Your task to perform on an android device: Open Google Maps and go to "Timeline" Image 0: 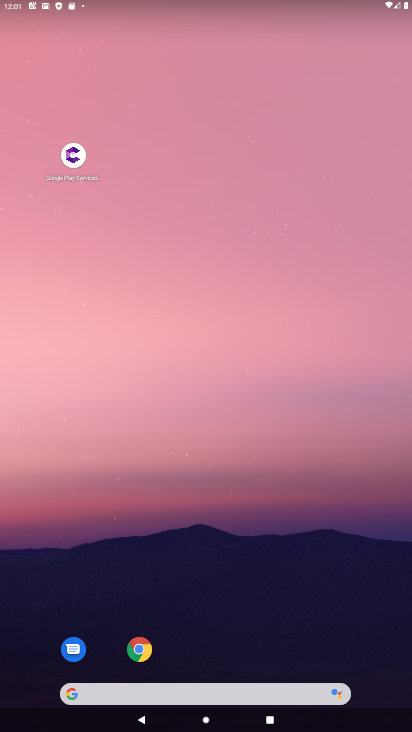
Step 0: drag from (151, 675) to (175, 161)
Your task to perform on an android device: Open Google Maps and go to "Timeline" Image 1: 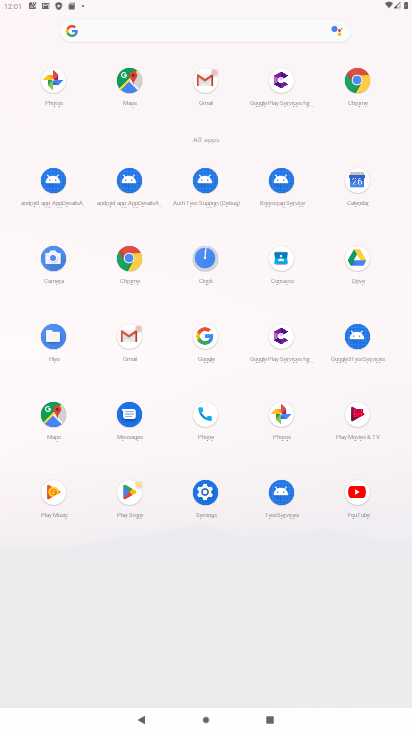
Step 1: click (45, 413)
Your task to perform on an android device: Open Google Maps and go to "Timeline" Image 2: 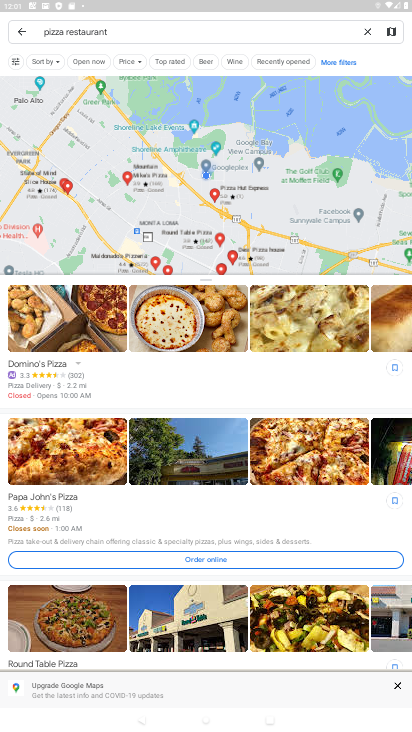
Step 2: click (363, 33)
Your task to perform on an android device: Open Google Maps and go to "Timeline" Image 3: 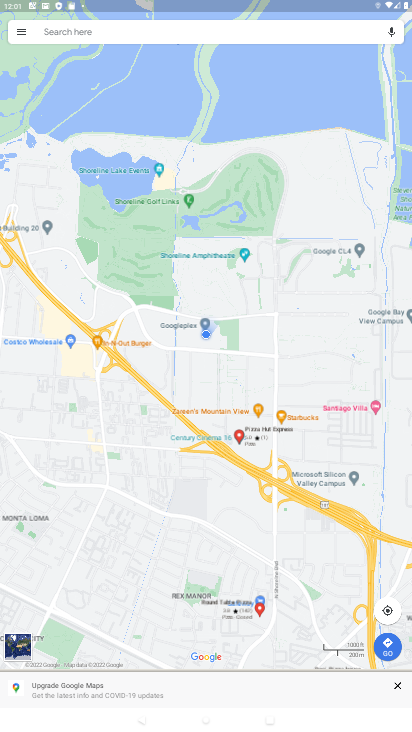
Step 3: click (21, 32)
Your task to perform on an android device: Open Google Maps and go to "Timeline" Image 4: 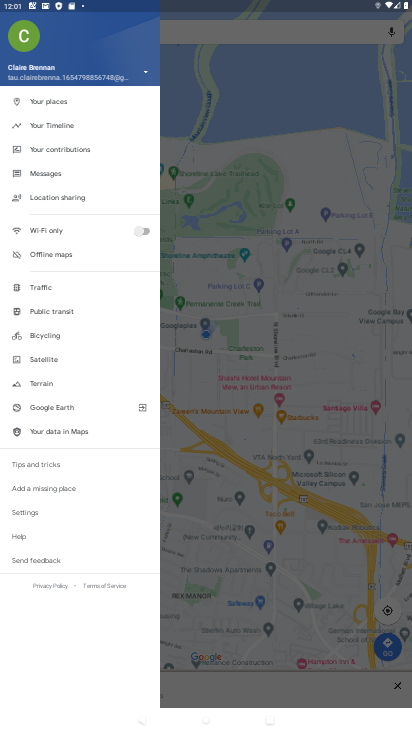
Step 4: click (53, 126)
Your task to perform on an android device: Open Google Maps and go to "Timeline" Image 5: 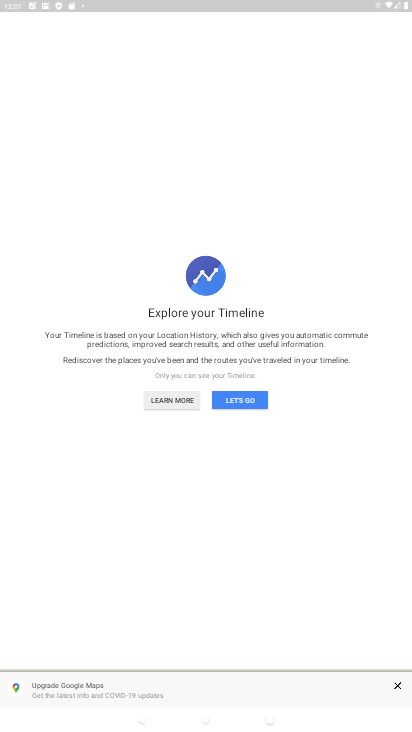
Step 5: click (256, 395)
Your task to perform on an android device: Open Google Maps and go to "Timeline" Image 6: 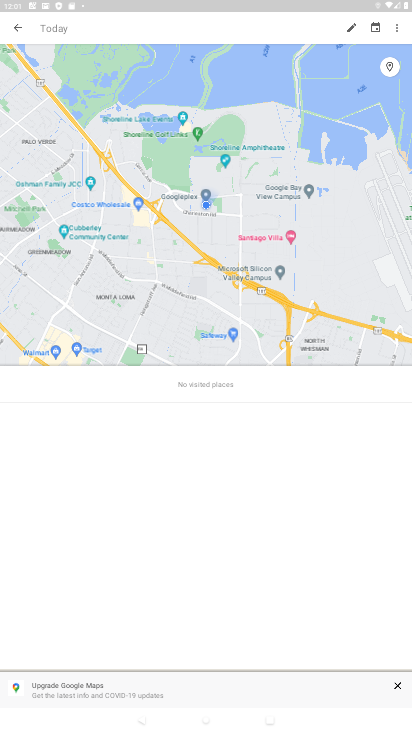
Step 6: task complete